Your task to perform on an android device: remove spam from my inbox in the gmail app Image 0: 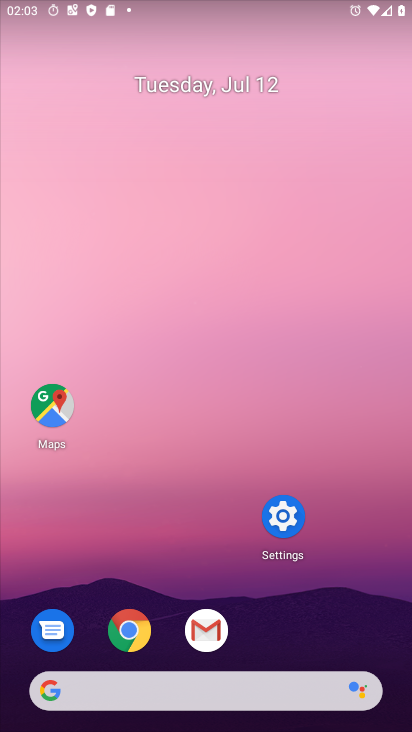
Step 0: click (206, 621)
Your task to perform on an android device: remove spam from my inbox in the gmail app Image 1: 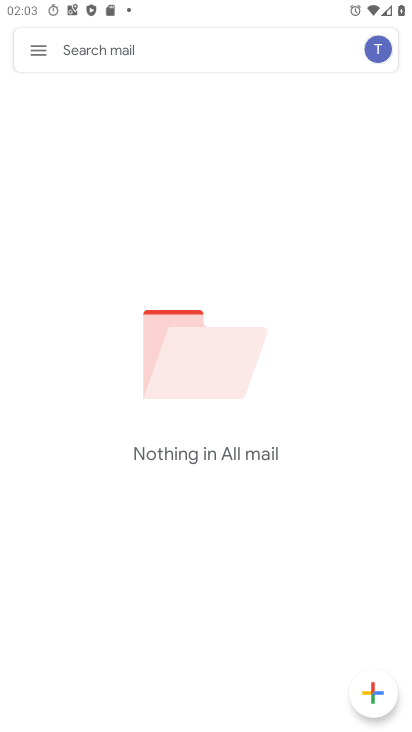
Step 1: click (43, 48)
Your task to perform on an android device: remove spam from my inbox in the gmail app Image 2: 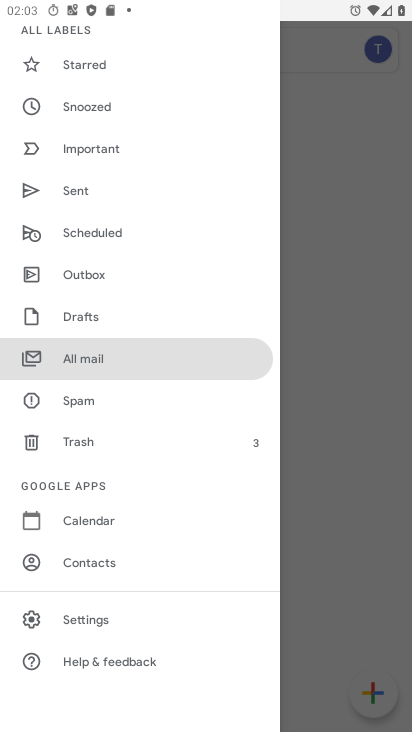
Step 2: click (88, 405)
Your task to perform on an android device: remove spam from my inbox in the gmail app Image 3: 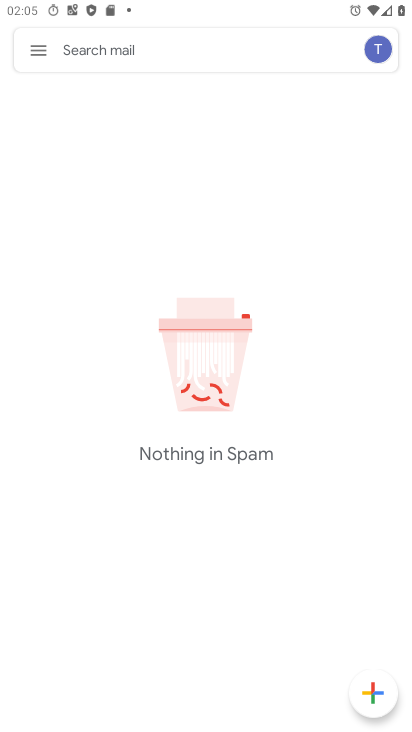
Step 3: task complete